Your task to perform on an android device: see tabs open on other devices in the chrome app Image 0: 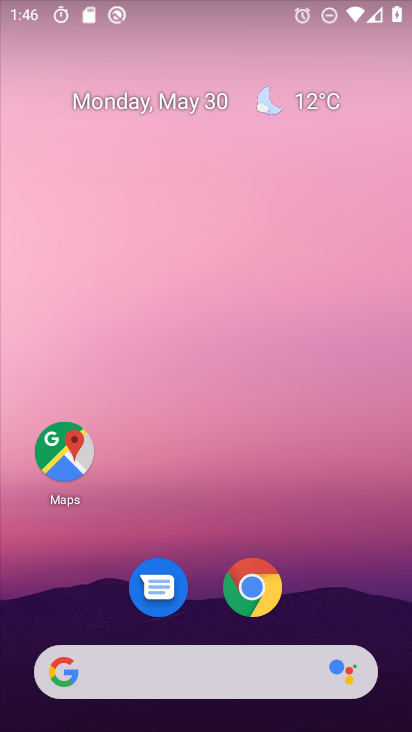
Step 0: drag from (352, 575) to (381, 111)
Your task to perform on an android device: see tabs open on other devices in the chrome app Image 1: 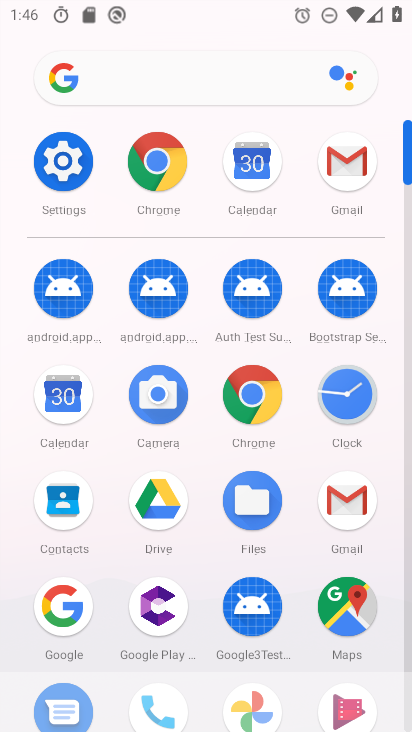
Step 1: click (250, 396)
Your task to perform on an android device: see tabs open on other devices in the chrome app Image 2: 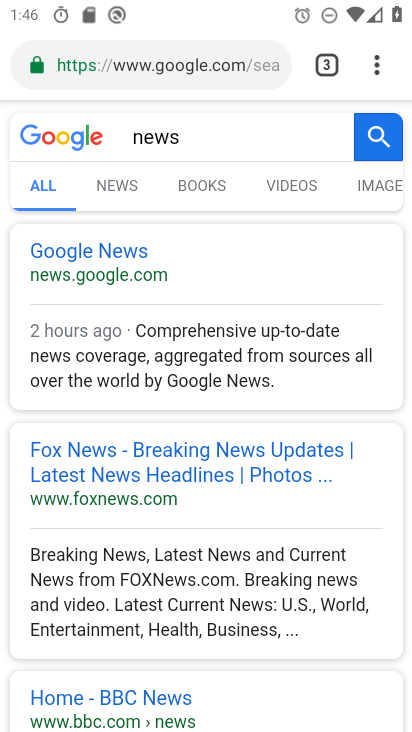
Step 2: task complete